Your task to perform on an android device: Open CNN.com Image 0: 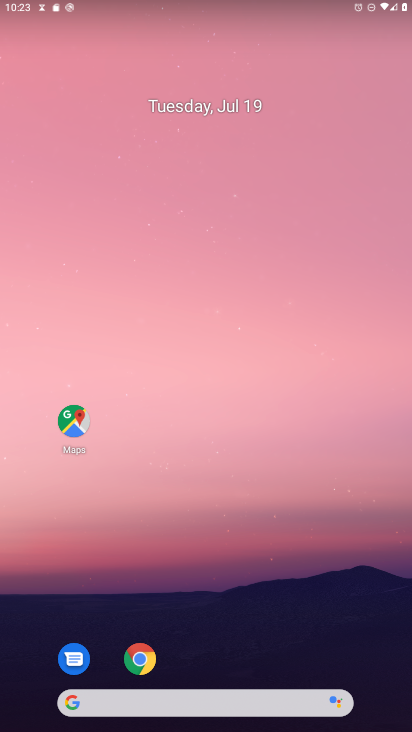
Step 0: click (147, 654)
Your task to perform on an android device: Open CNN.com Image 1: 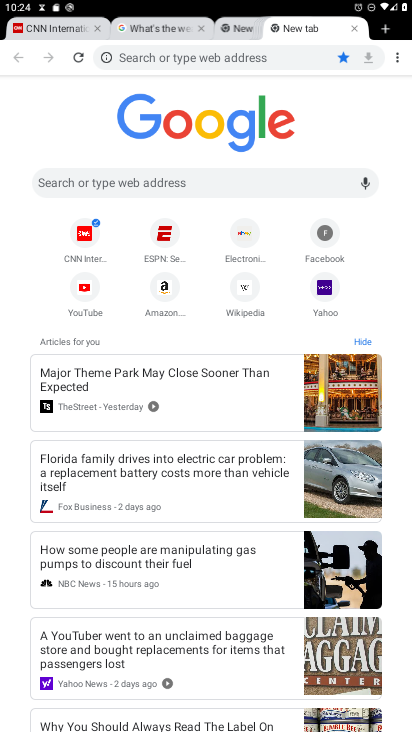
Step 1: click (74, 221)
Your task to perform on an android device: Open CNN.com Image 2: 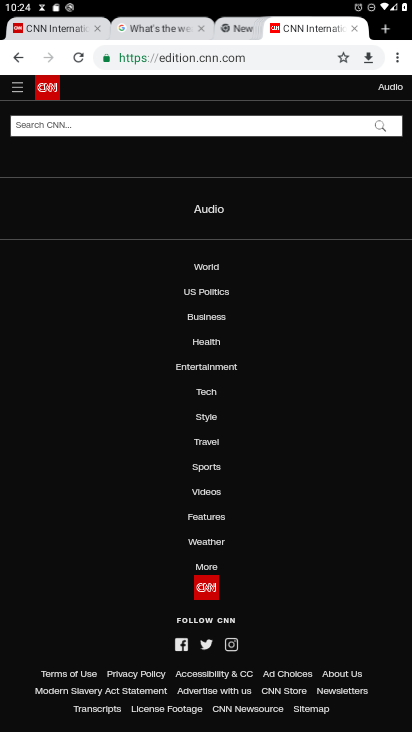
Step 2: task complete